Your task to perform on an android device: turn off picture-in-picture Image 0: 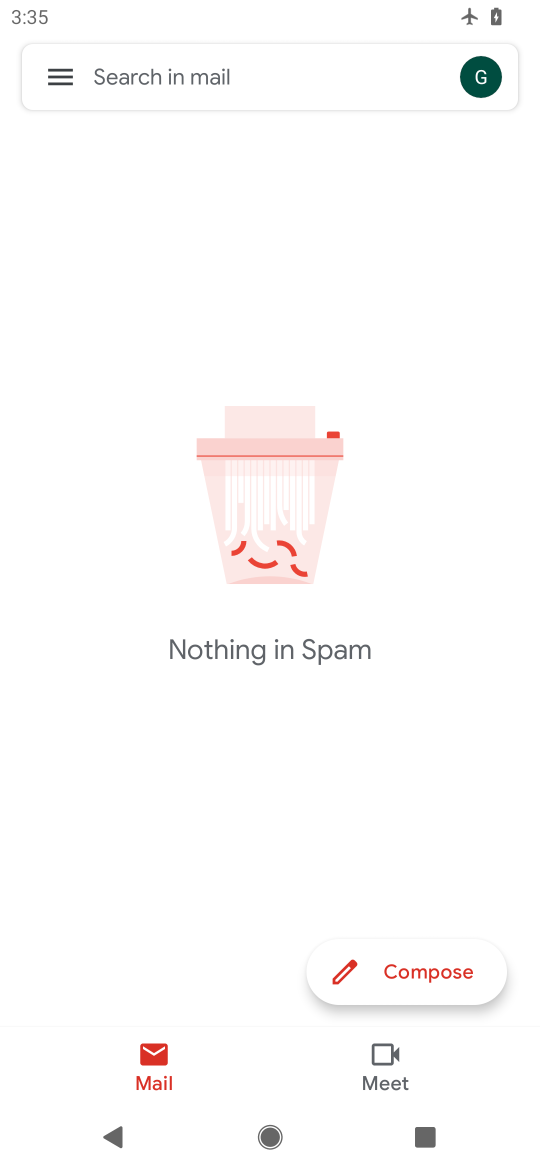
Step 0: press back button
Your task to perform on an android device: turn off picture-in-picture Image 1: 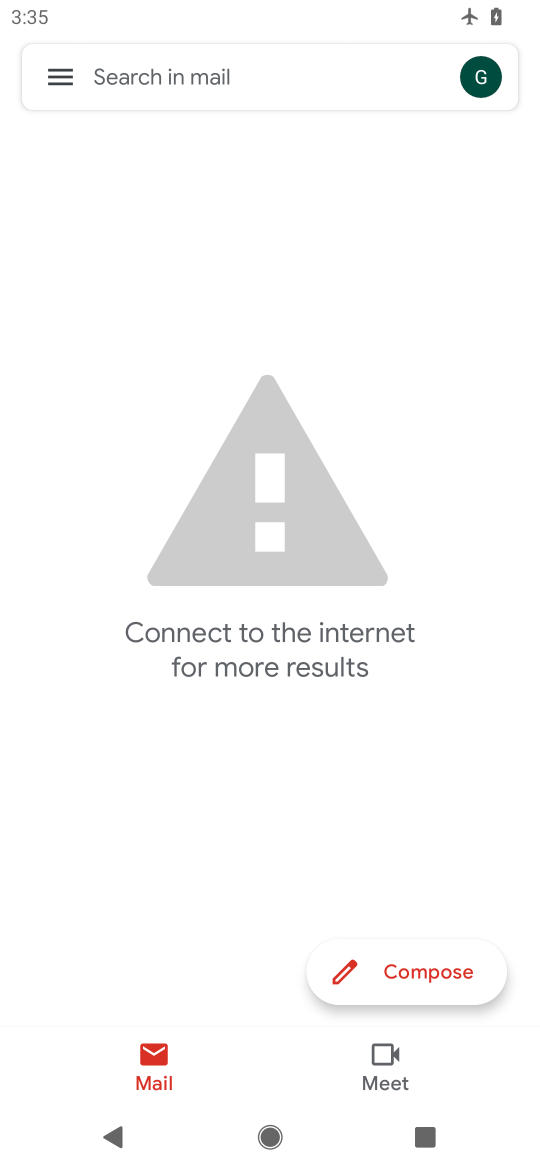
Step 1: press home button
Your task to perform on an android device: turn off picture-in-picture Image 2: 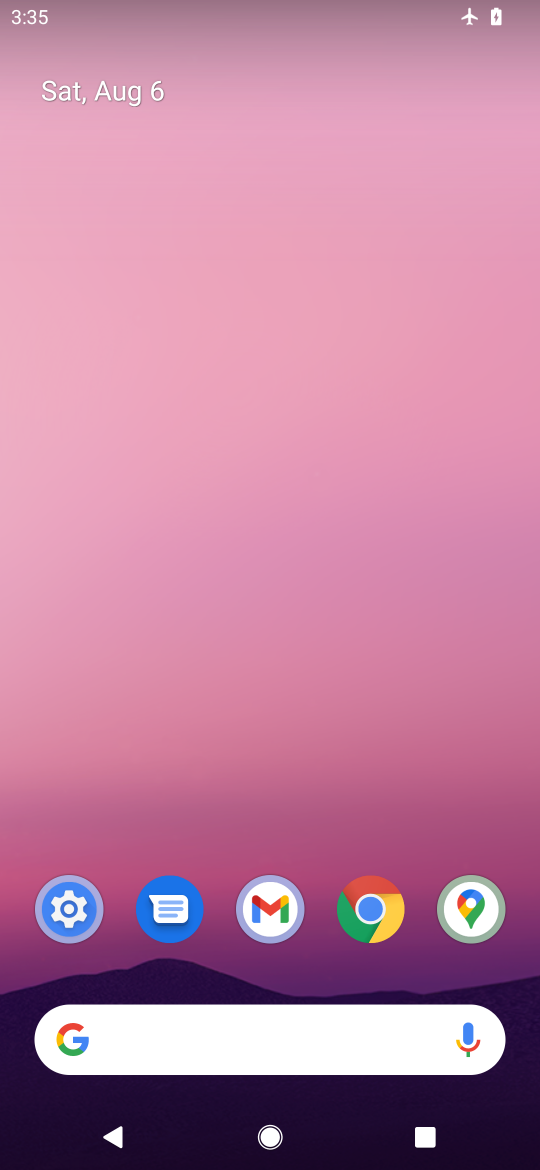
Step 2: click (63, 917)
Your task to perform on an android device: turn off picture-in-picture Image 3: 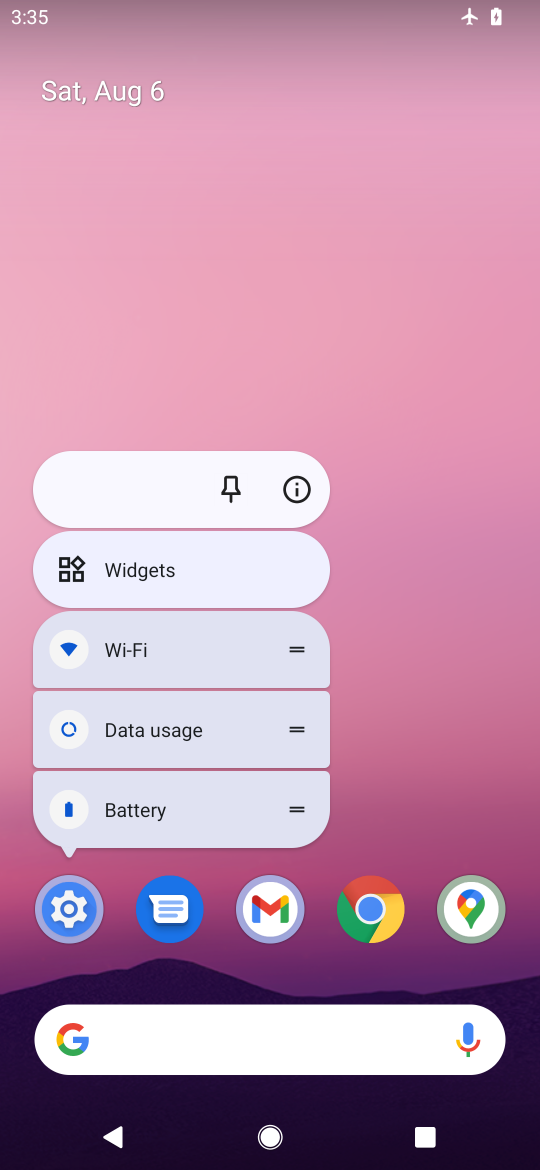
Step 3: click (49, 921)
Your task to perform on an android device: turn off picture-in-picture Image 4: 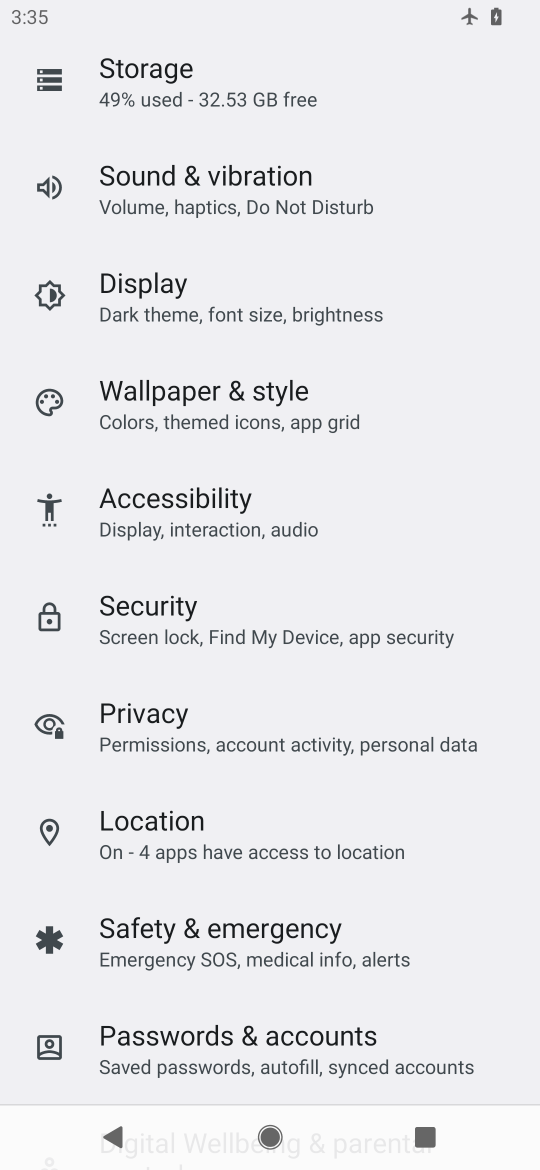
Step 4: drag from (345, 229) to (281, 1114)
Your task to perform on an android device: turn off picture-in-picture Image 5: 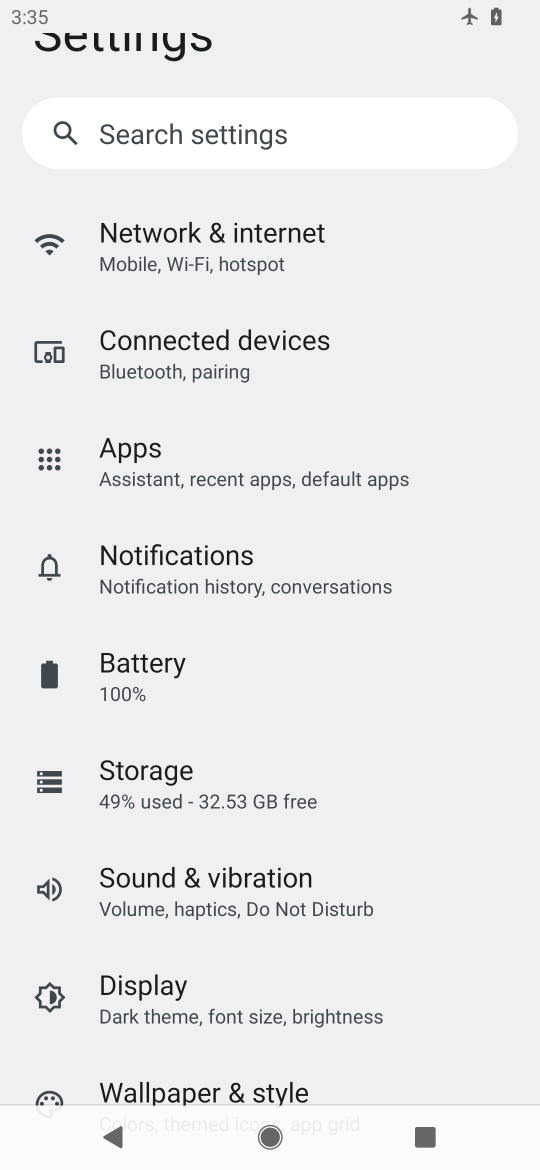
Step 5: drag from (343, 375) to (312, 1065)
Your task to perform on an android device: turn off picture-in-picture Image 6: 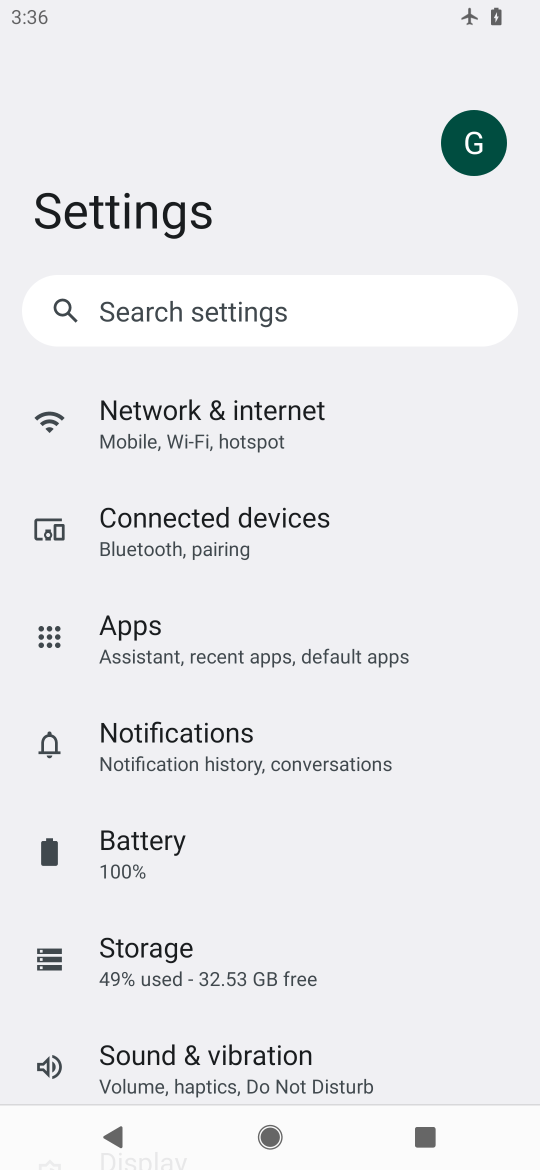
Step 6: click (232, 770)
Your task to perform on an android device: turn off picture-in-picture Image 7: 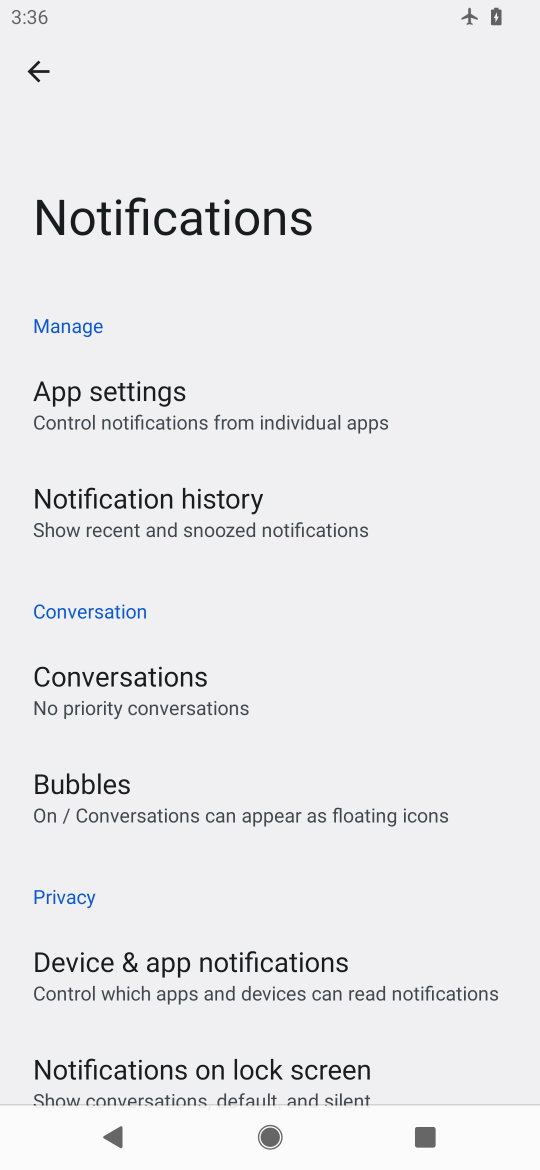
Step 7: task complete